Your task to perform on an android device: Open battery settings Image 0: 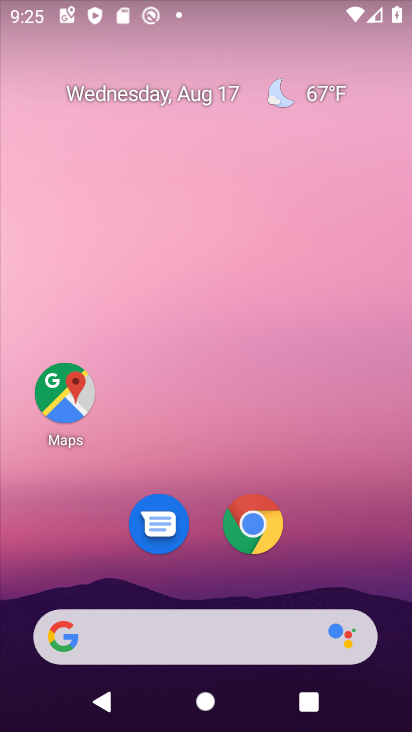
Step 0: click (261, 520)
Your task to perform on an android device: Open battery settings Image 1: 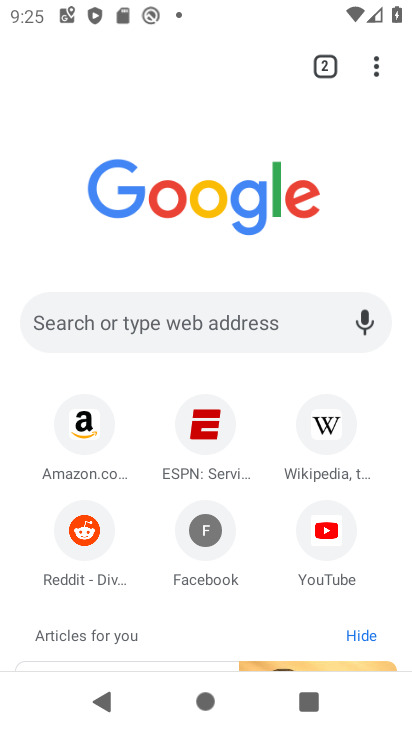
Step 1: click (330, 419)
Your task to perform on an android device: Open battery settings Image 2: 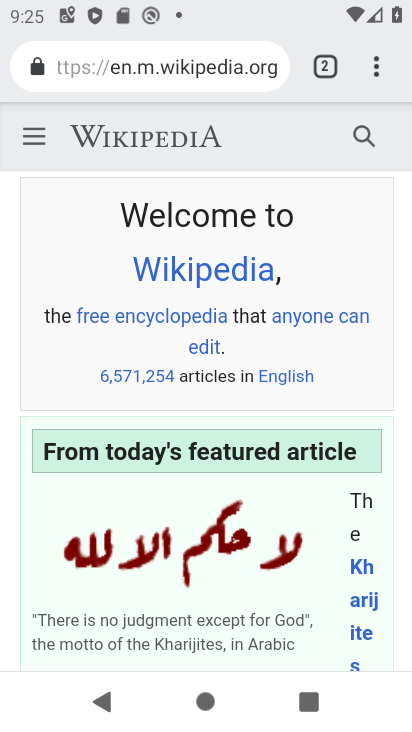
Step 2: task complete